Your task to perform on an android device: Go to Maps Image 0: 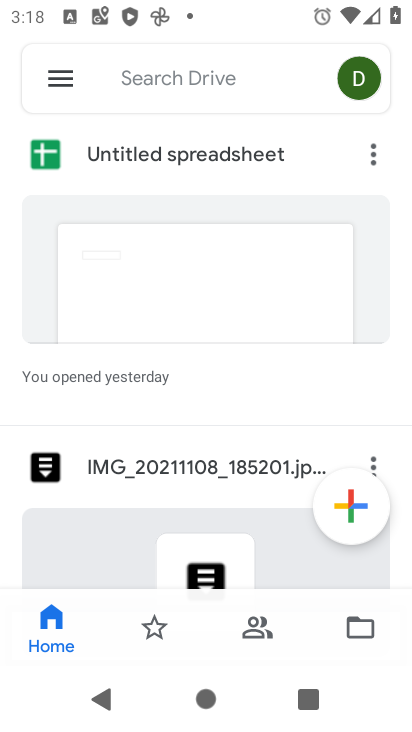
Step 0: press home button
Your task to perform on an android device: Go to Maps Image 1: 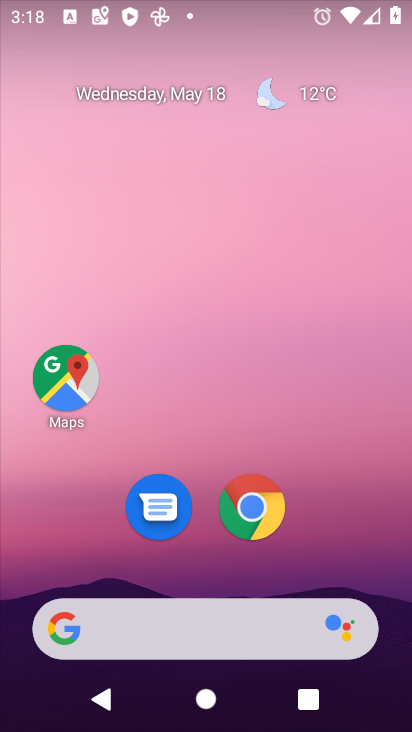
Step 1: click (60, 373)
Your task to perform on an android device: Go to Maps Image 2: 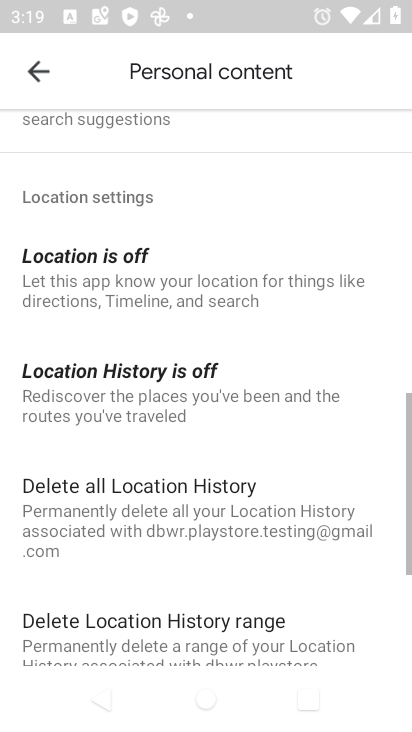
Step 2: task complete